Your task to perform on an android device: Open network settings Image 0: 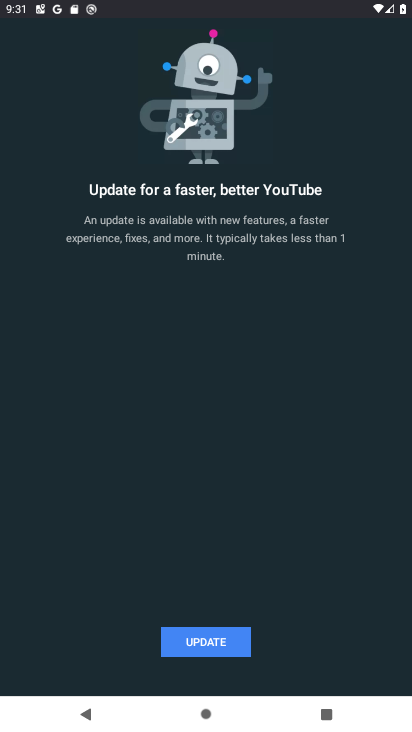
Step 0: drag from (266, 5) to (235, 705)
Your task to perform on an android device: Open network settings Image 1: 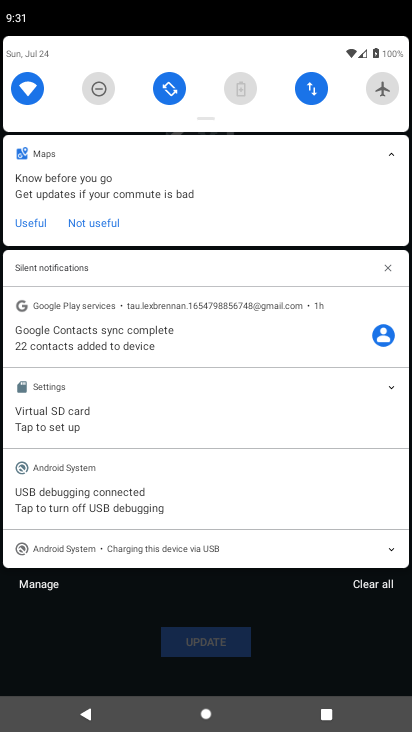
Step 1: click (310, 91)
Your task to perform on an android device: Open network settings Image 2: 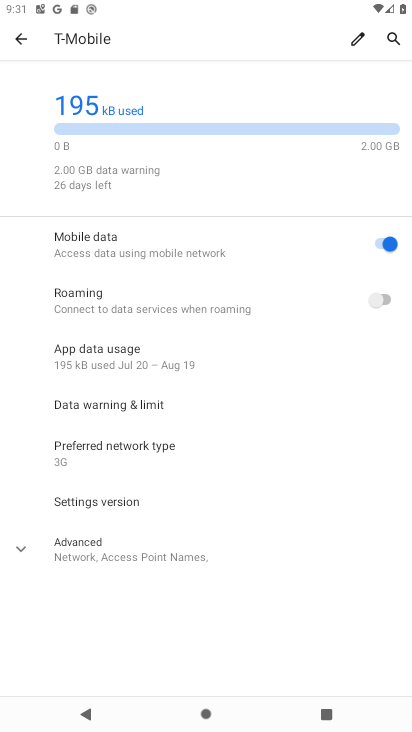
Step 2: task complete